Your task to perform on an android device: delete browsing data in the chrome app Image 0: 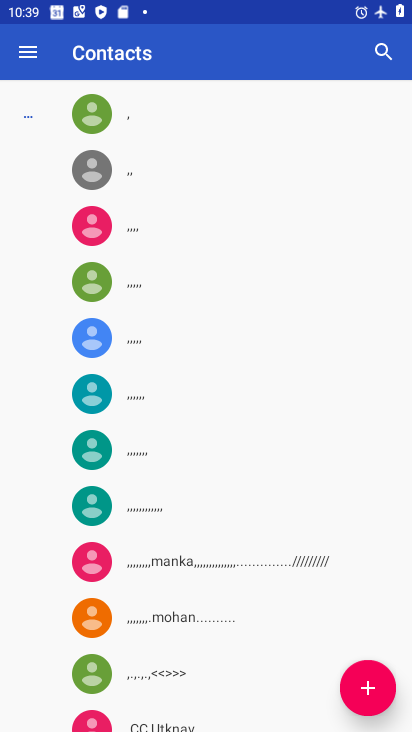
Step 0: press home button
Your task to perform on an android device: delete browsing data in the chrome app Image 1: 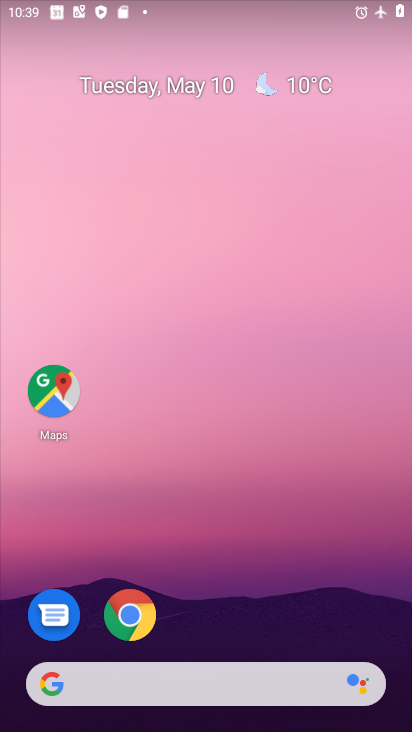
Step 1: drag from (229, 642) to (228, 43)
Your task to perform on an android device: delete browsing data in the chrome app Image 2: 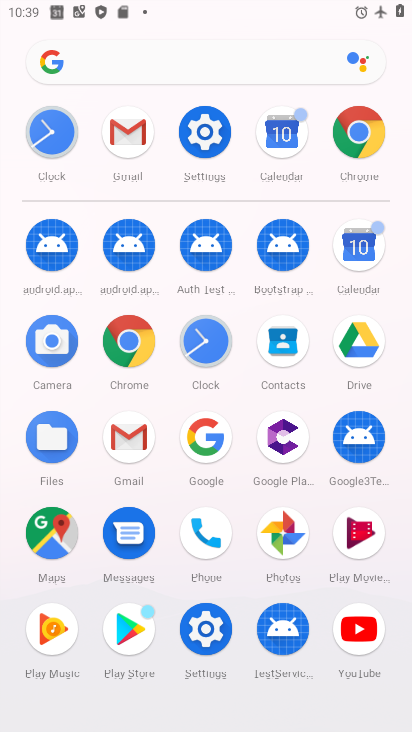
Step 2: click (53, 529)
Your task to perform on an android device: delete browsing data in the chrome app Image 3: 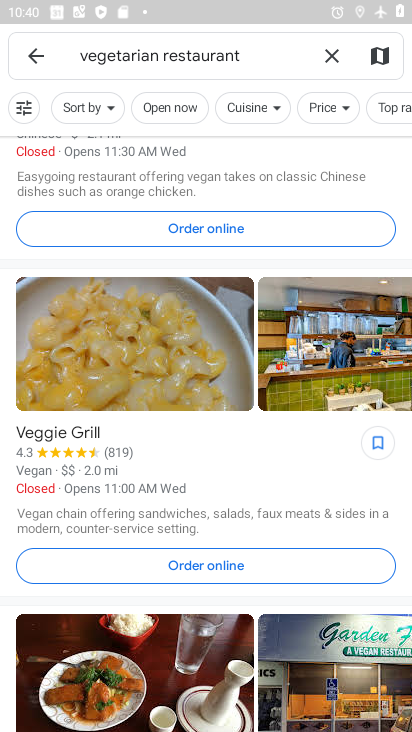
Step 3: drag from (253, 604) to (228, 124)
Your task to perform on an android device: delete browsing data in the chrome app Image 4: 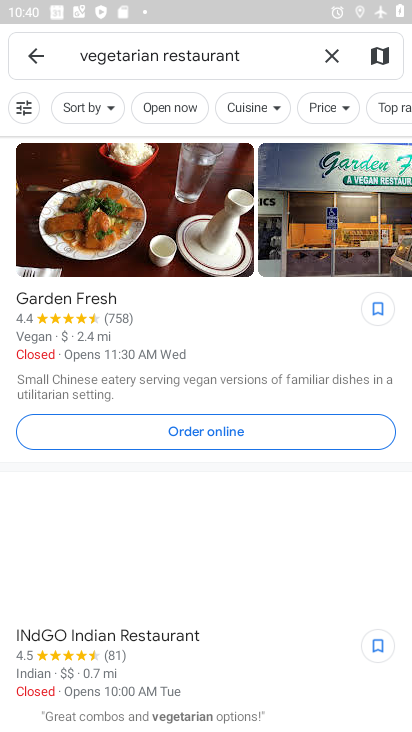
Step 4: drag from (238, 650) to (267, 107)
Your task to perform on an android device: delete browsing data in the chrome app Image 5: 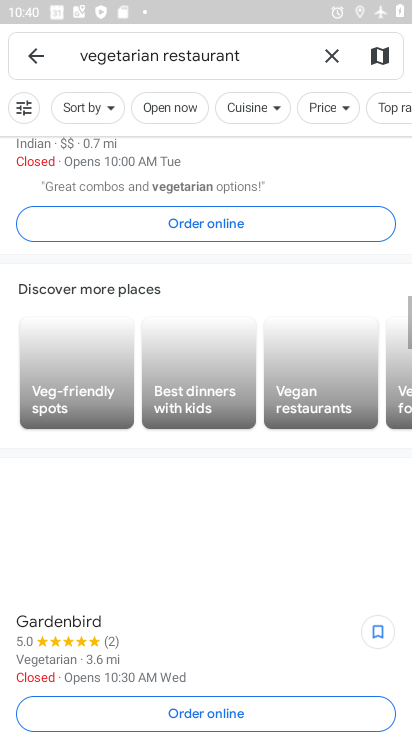
Step 5: drag from (245, 624) to (248, 170)
Your task to perform on an android device: delete browsing data in the chrome app Image 6: 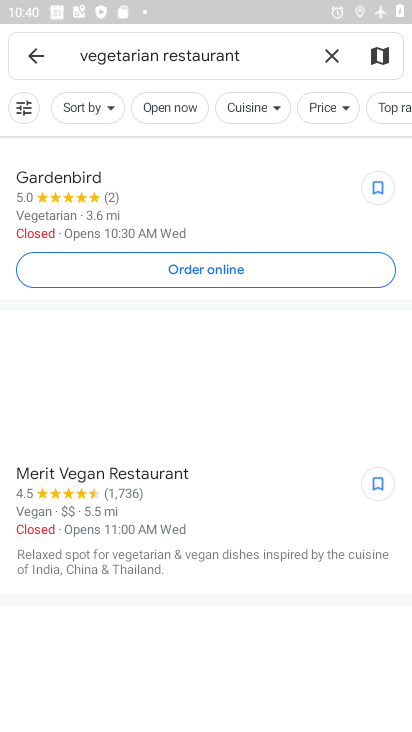
Step 6: click (43, 54)
Your task to perform on an android device: delete browsing data in the chrome app Image 7: 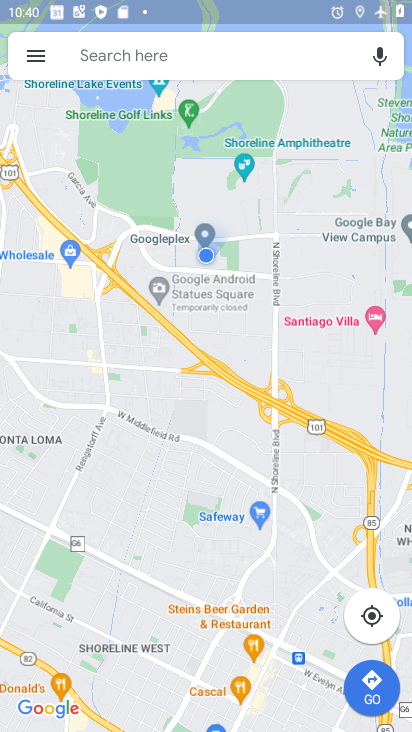
Step 7: click (33, 56)
Your task to perform on an android device: delete browsing data in the chrome app Image 8: 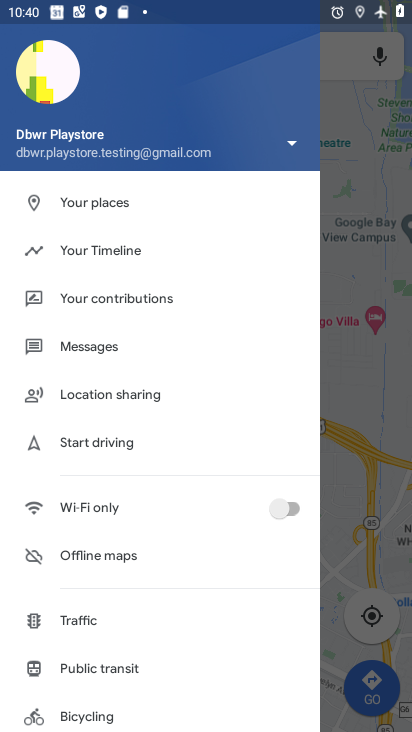
Step 8: click (119, 250)
Your task to perform on an android device: delete browsing data in the chrome app Image 9: 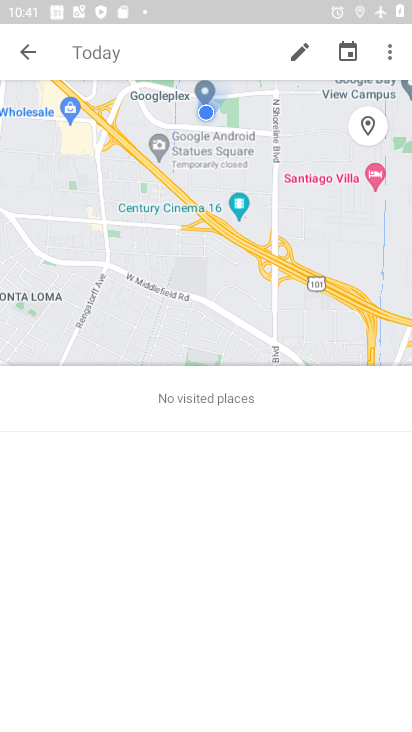
Step 9: click (389, 55)
Your task to perform on an android device: delete browsing data in the chrome app Image 10: 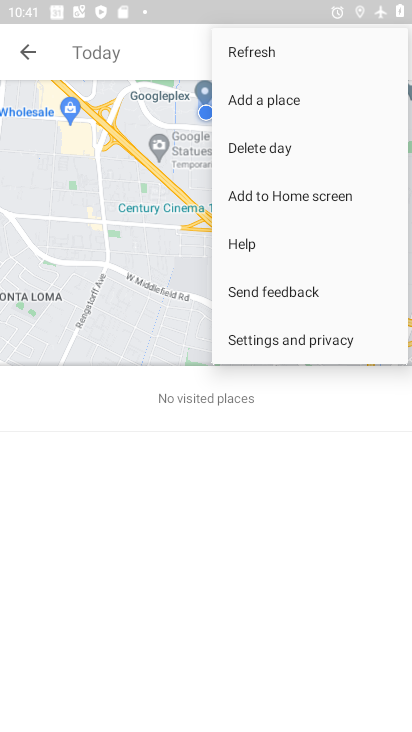
Step 10: click (286, 342)
Your task to perform on an android device: delete browsing data in the chrome app Image 11: 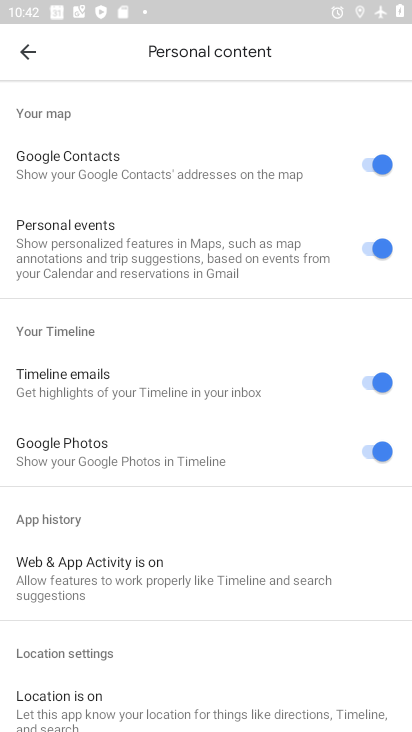
Step 11: drag from (164, 172) to (163, 106)
Your task to perform on an android device: delete browsing data in the chrome app Image 12: 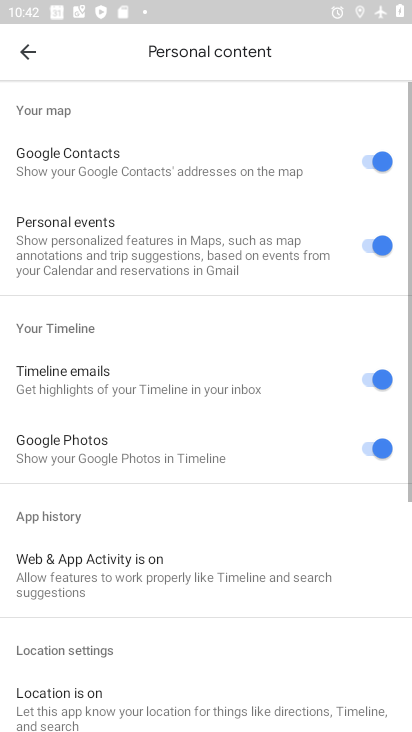
Step 12: drag from (126, 619) to (135, 151)
Your task to perform on an android device: delete browsing data in the chrome app Image 13: 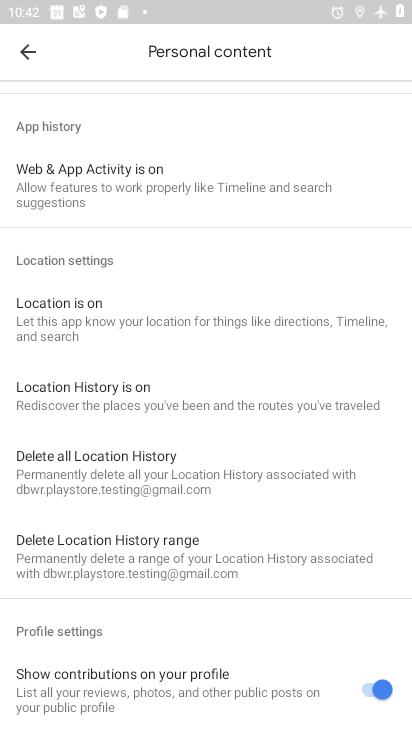
Step 13: click (148, 474)
Your task to perform on an android device: delete browsing data in the chrome app Image 14: 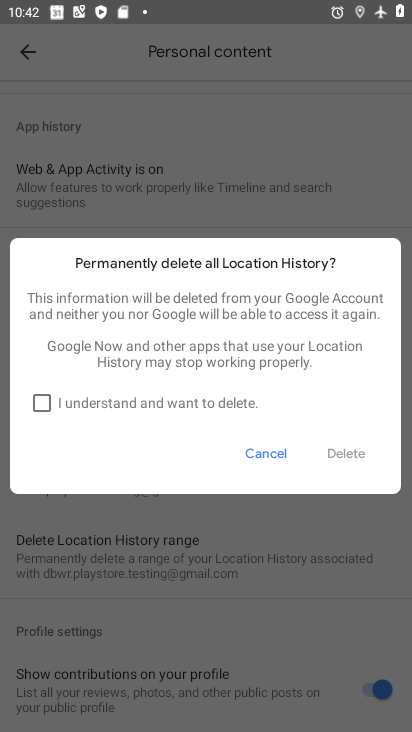
Step 14: click (39, 404)
Your task to perform on an android device: delete browsing data in the chrome app Image 15: 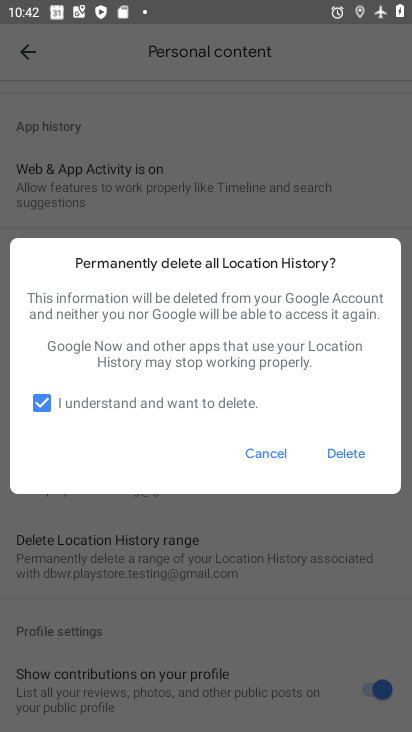
Step 15: click (356, 457)
Your task to perform on an android device: delete browsing data in the chrome app Image 16: 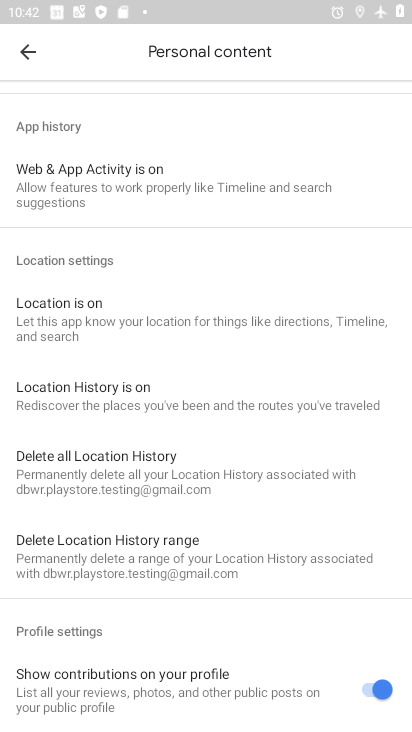
Step 16: task complete